Your task to perform on an android device: find which apps use the phone's location Image 0: 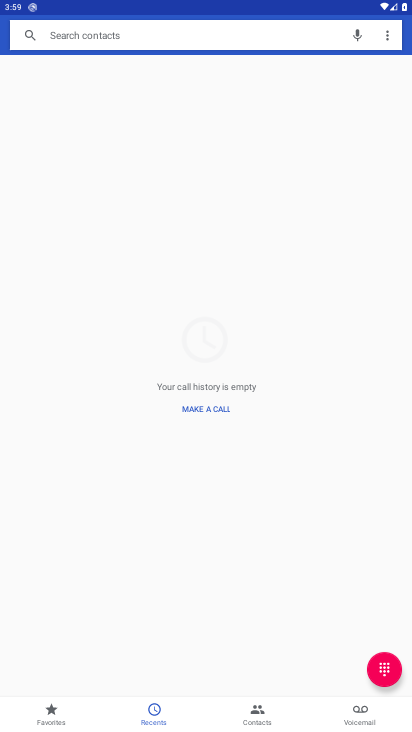
Step 0: press home button
Your task to perform on an android device: find which apps use the phone's location Image 1: 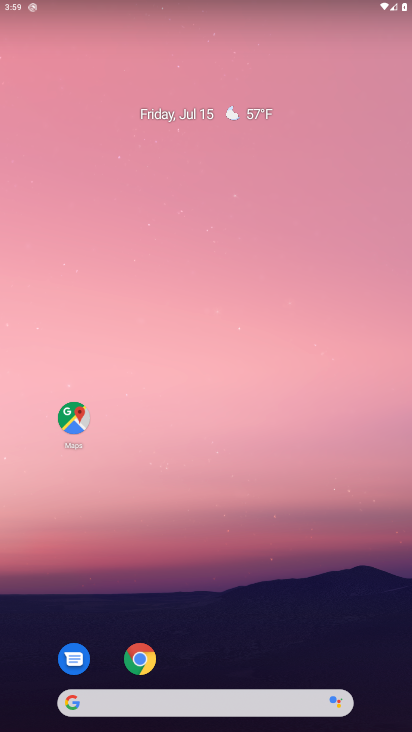
Step 1: drag from (18, 700) to (235, 89)
Your task to perform on an android device: find which apps use the phone's location Image 2: 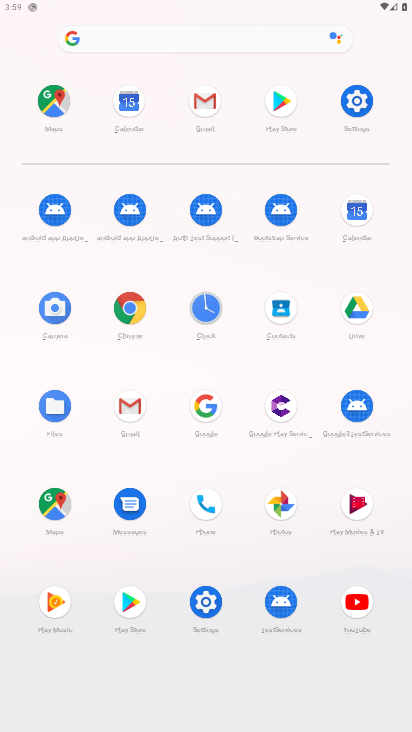
Step 2: click (197, 614)
Your task to perform on an android device: find which apps use the phone's location Image 3: 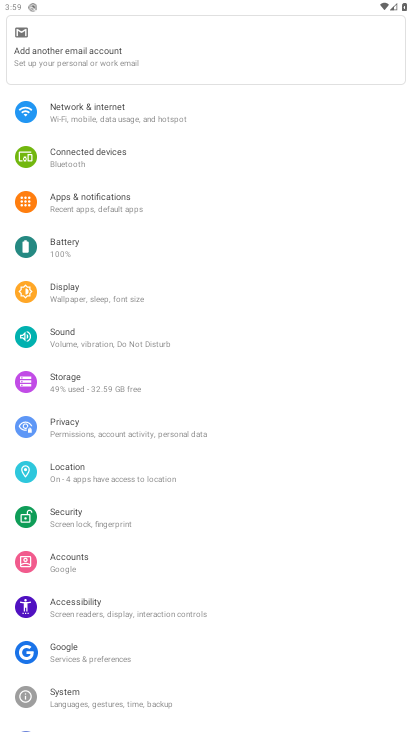
Step 3: click (84, 466)
Your task to perform on an android device: find which apps use the phone's location Image 4: 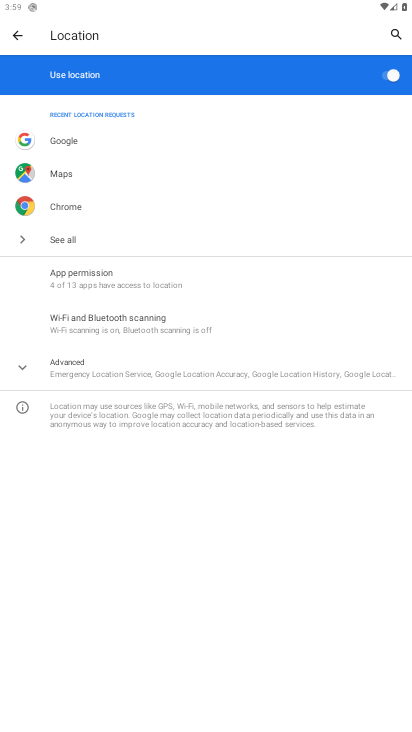
Step 4: click (100, 276)
Your task to perform on an android device: find which apps use the phone's location Image 5: 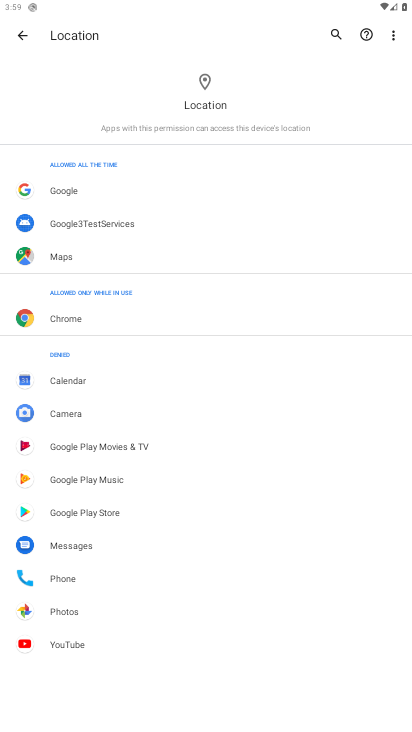
Step 5: task complete